Your task to perform on an android device: When is my next meeting? Image 0: 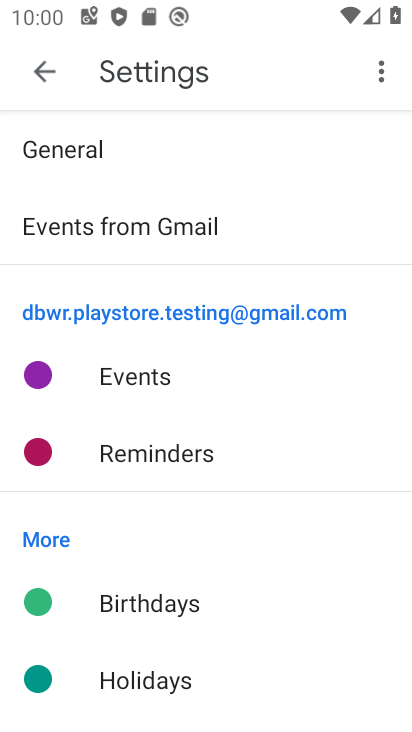
Step 0: press home button
Your task to perform on an android device: When is my next meeting? Image 1: 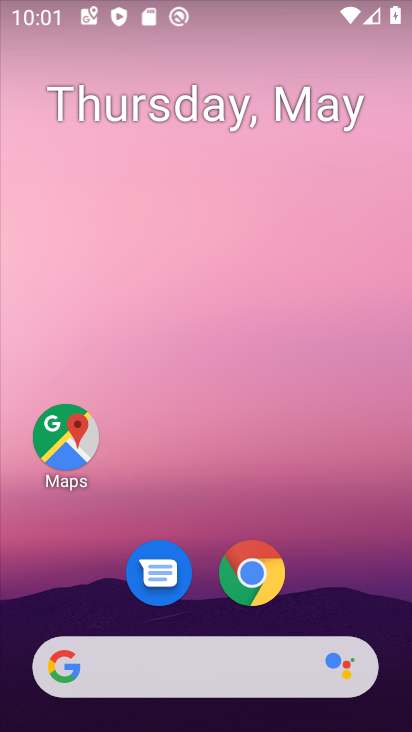
Step 1: drag from (203, 609) to (212, 275)
Your task to perform on an android device: When is my next meeting? Image 2: 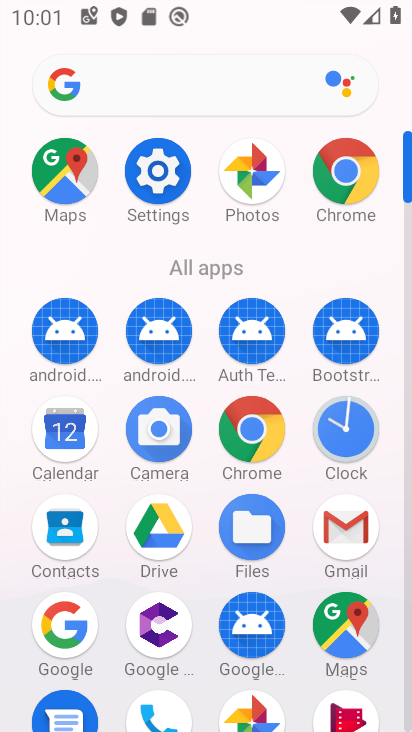
Step 2: click (80, 436)
Your task to perform on an android device: When is my next meeting? Image 3: 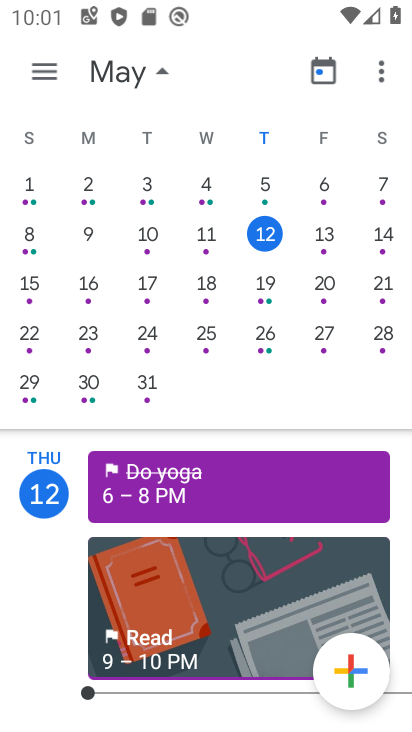
Step 3: task complete